Your task to perform on an android device: Go to settings Image 0: 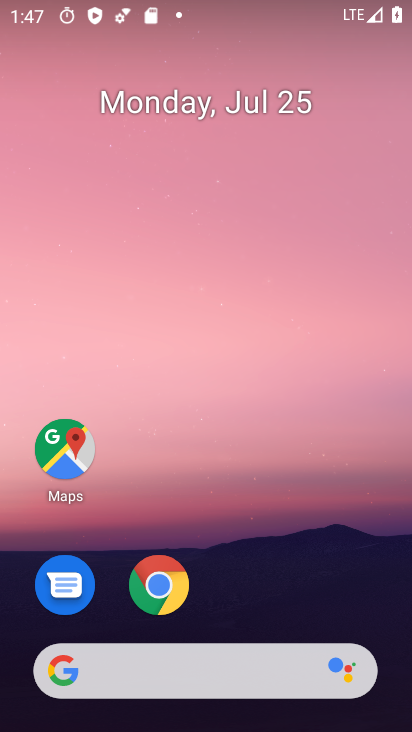
Step 0: drag from (176, 673) to (127, 277)
Your task to perform on an android device: Go to settings Image 1: 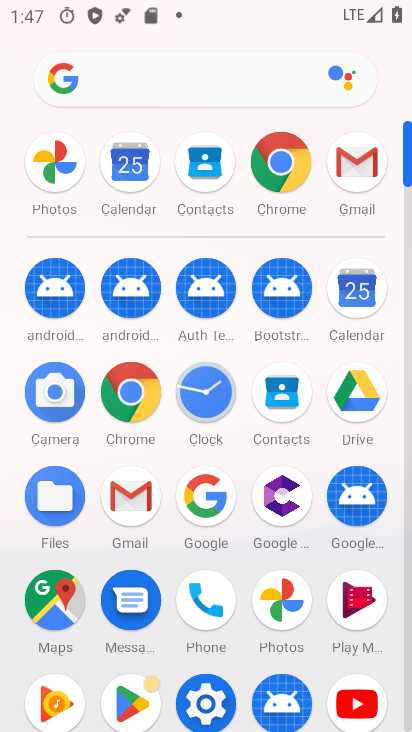
Step 1: click (213, 696)
Your task to perform on an android device: Go to settings Image 2: 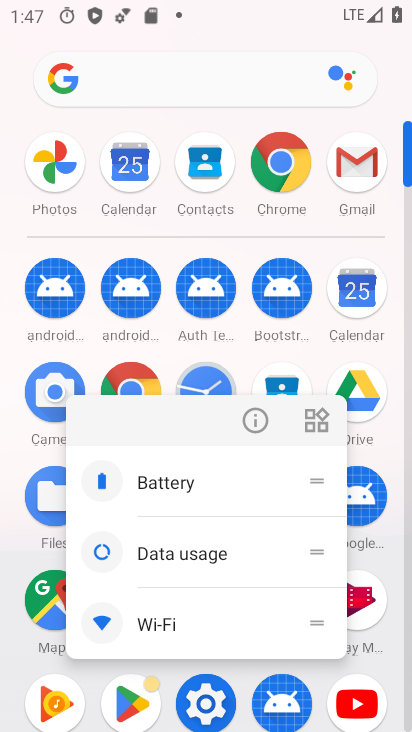
Step 2: click (192, 703)
Your task to perform on an android device: Go to settings Image 3: 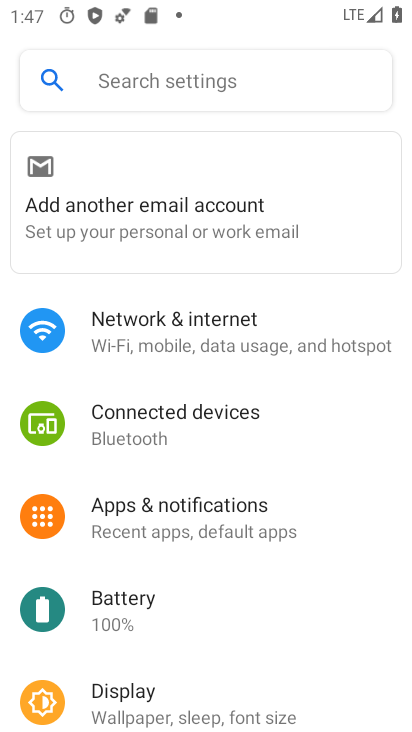
Step 3: task complete